Your task to perform on an android device: change the clock display to show seconds Image 0: 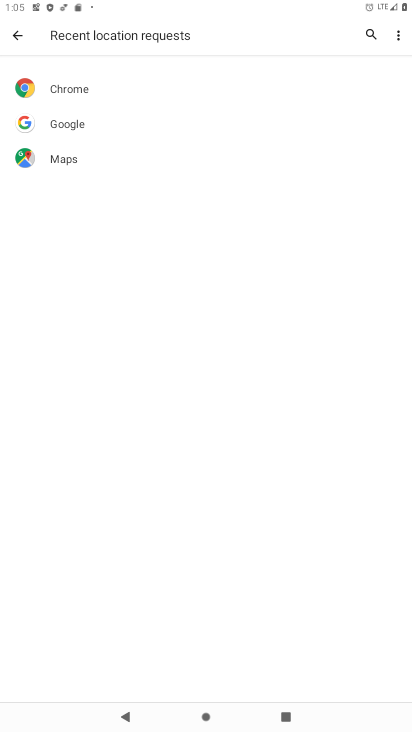
Step 0: press home button
Your task to perform on an android device: change the clock display to show seconds Image 1: 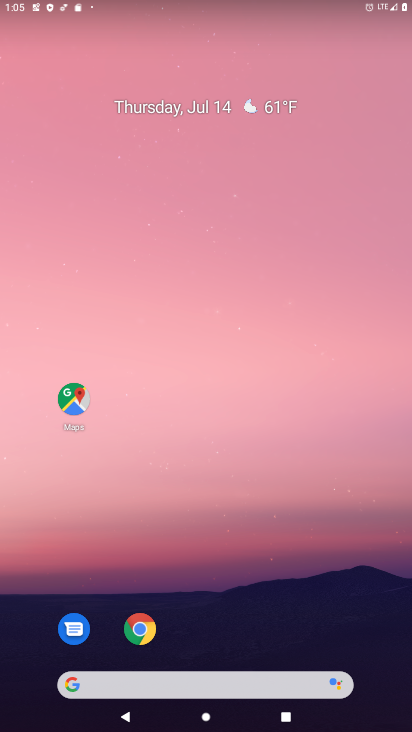
Step 1: drag from (248, 500) to (163, 90)
Your task to perform on an android device: change the clock display to show seconds Image 2: 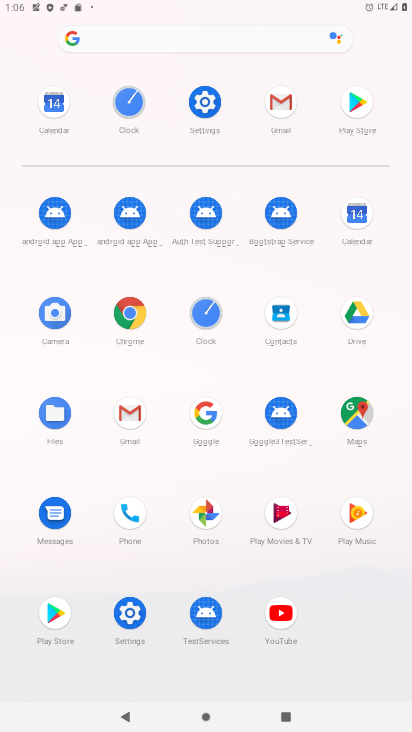
Step 2: click (206, 306)
Your task to perform on an android device: change the clock display to show seconds Image 3: 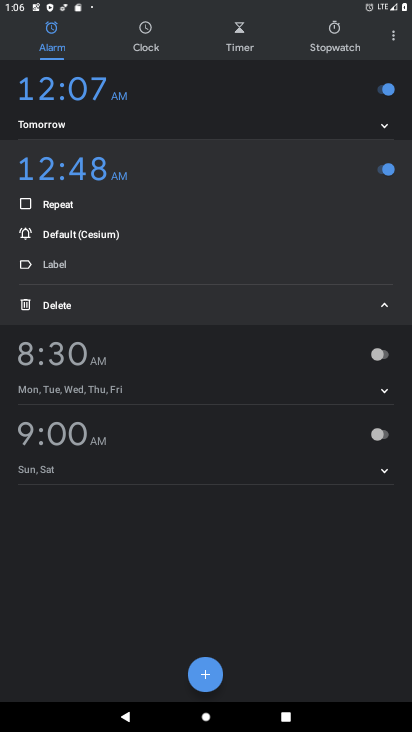
Step 3: click (388, 39)
Your task to perform on an android device: change the clock display to show seconds Image 4: 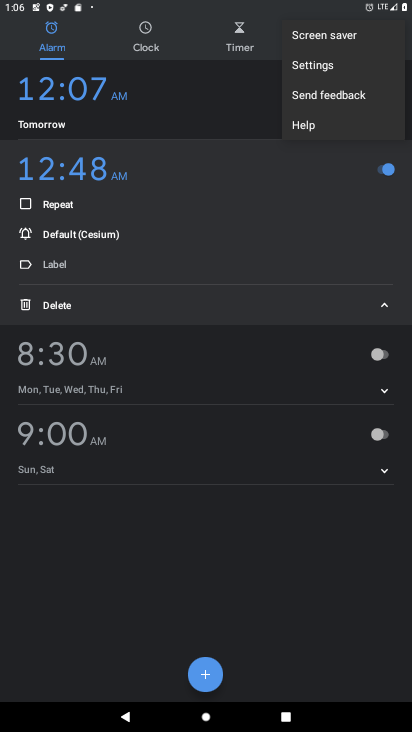
Step 4: click (322, 60)
Your task to perform on an android device: change the clock display to show seconds Image 5: 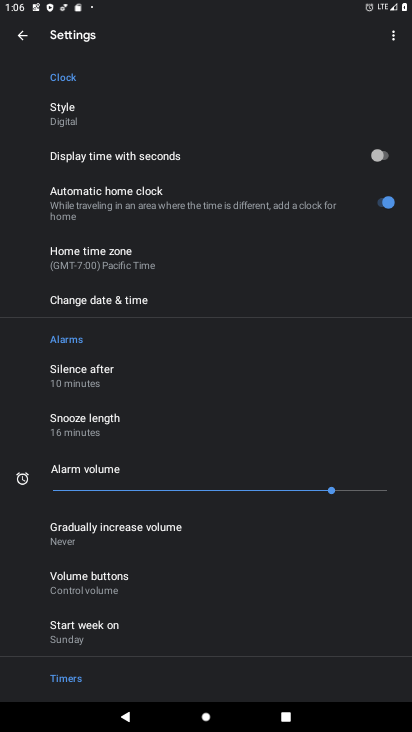
Step 5: click (379, 160)
Your task to perform on an android device: change the clock display to show seconds Image 6: 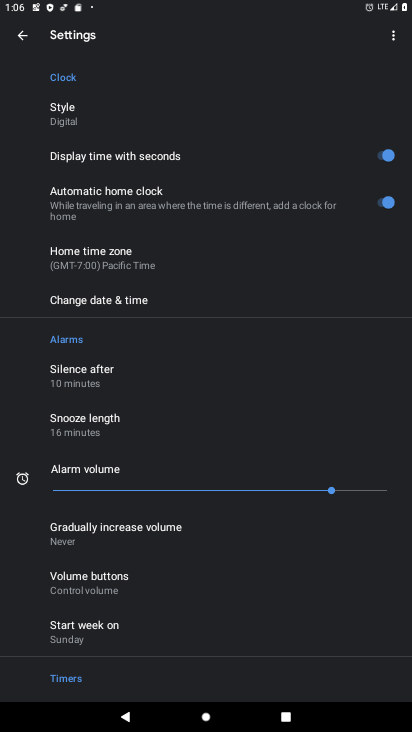
Step 6: task complete